Your task to perform on an android device: Open calendar and show me the second week of next month Image 0: 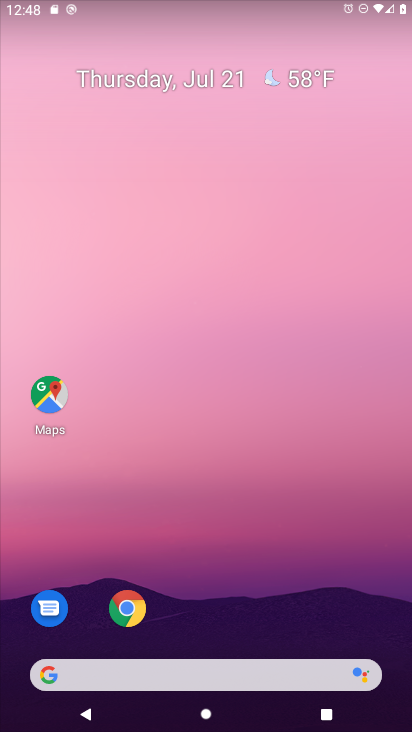
Step 0: press home button
Your task to perform on an android device: Open calendar and show me the second week of next month Image 1: 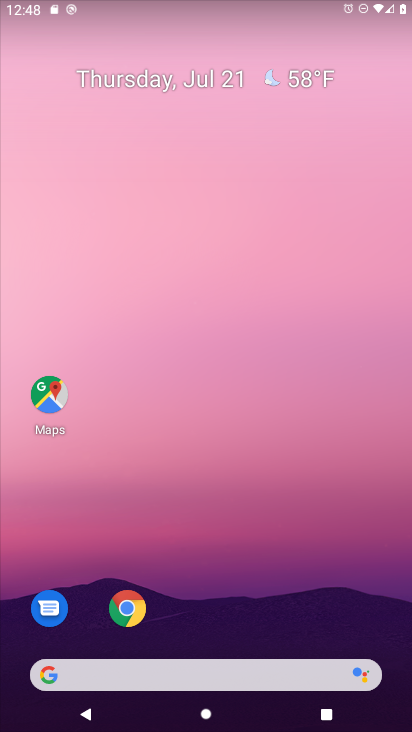
Step 1: drag from (223, 633) to (251, 106)
Your task to perform on an android device: Open calendar and show me the second week of next month Image 2: 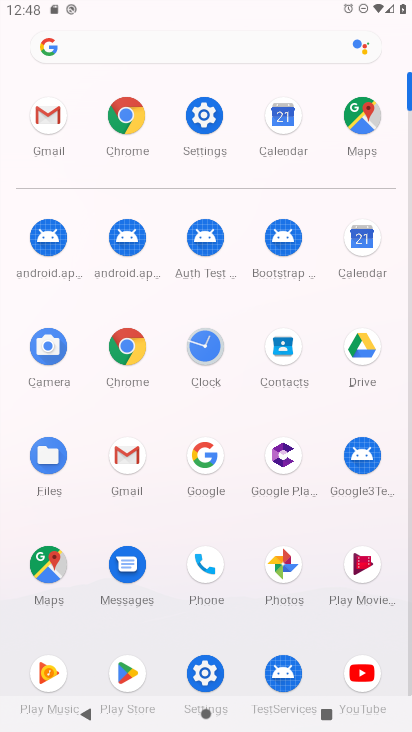
Step 2: click (360, 237)
Your task to perform on an android device: Open calendar and show me the second week of next month Image 3: 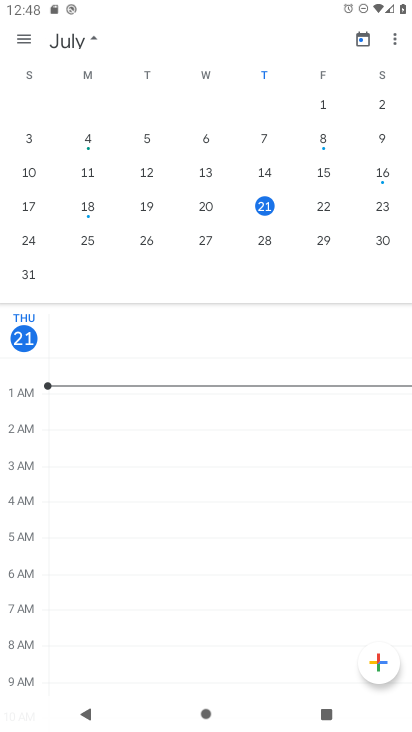
Step 3: drag from (305, 188) to (9, 69)
Your task to perform on an android device: Open calendar and show me the second week of next month Image 4: 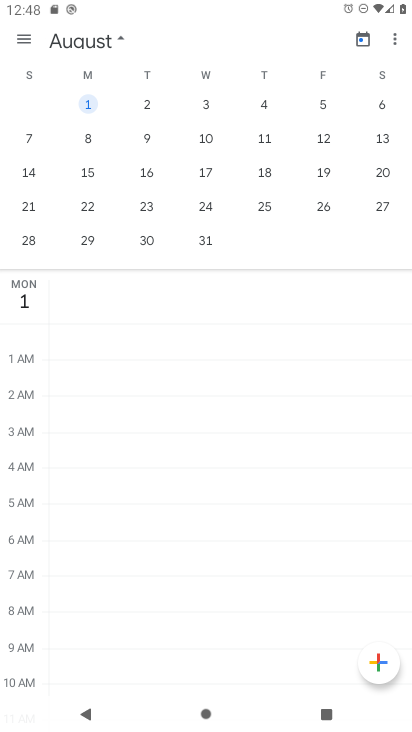
Step 4: click (93, 140)
Your task to perform on an android device: Open calendar and show me the second week of next month Image 5: 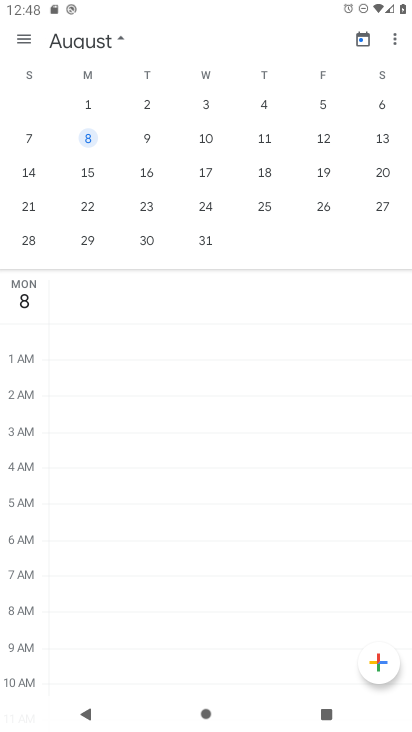
Step 5: click (151, 146)
Your task to perform on an android device: Open calendar and show me the second week of next month Image 6: 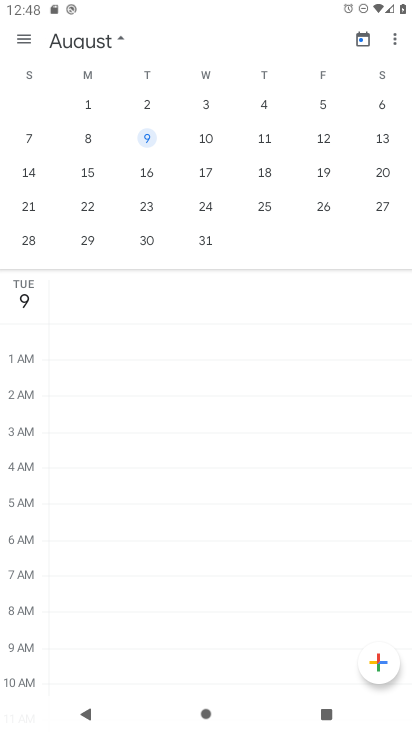
Step 6: click (204, 138)
Your task to perform on an android device: Open calendar and show me the second week of next month Image 7: 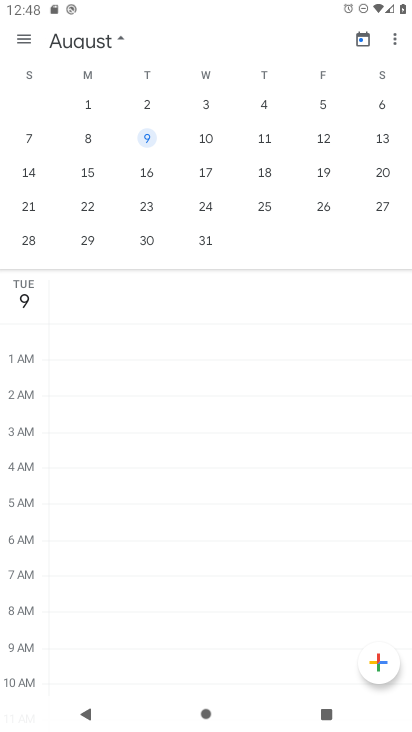
Step 7: click (262, 147)
Your task to perform on an android device: Open calendar and show me the second week of next month Image 8: 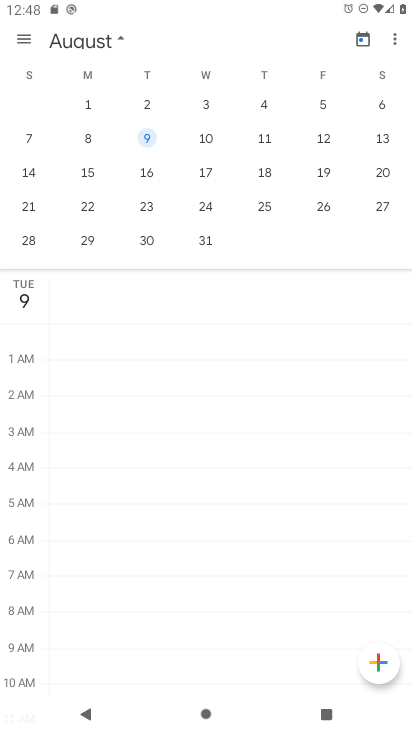
Step 8: click (333, 141)
Your task to perform on an android device: Open calendar and show me the second week of next month Image 9: 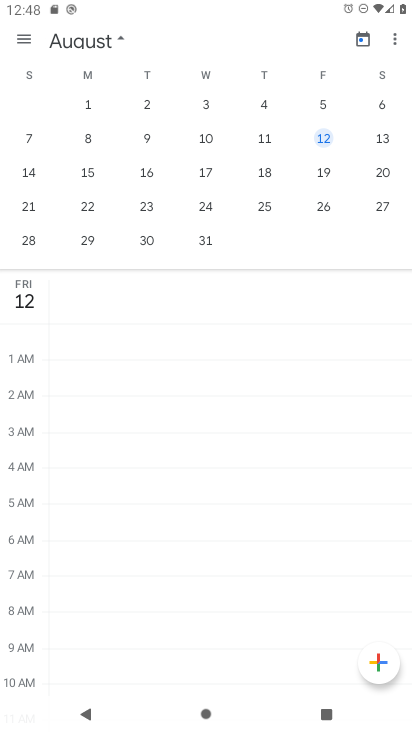
Step 9: click (380, 143)
Your task to perform on an android device: Open calendar and show me the second week of next month Image 10: 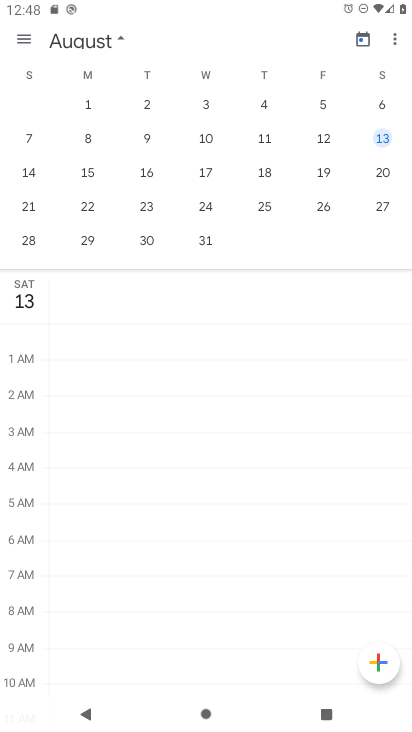
Step 10: click (42, 176)
Your task to perform on an android device: Open calendar and show me the second week of next month Image 11: 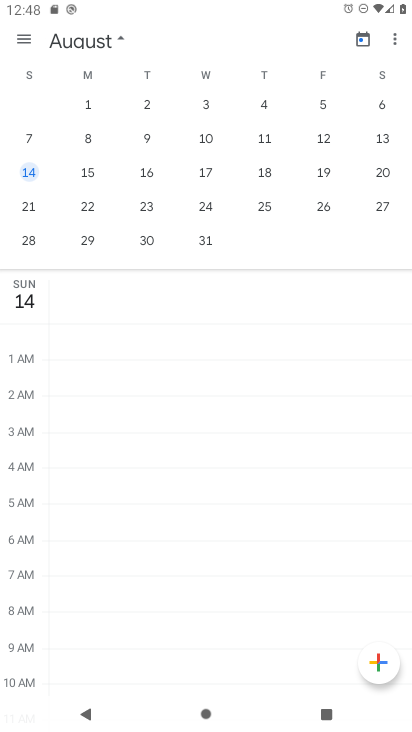
Step 11: task complete